Your task to perform on an android device: turn on improve location accuracy Image 0: 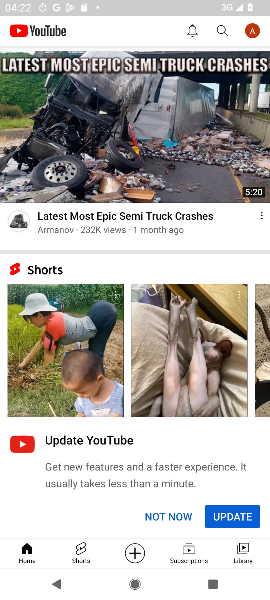
Step 0: press home button
Your task to perform on an android device: turn on improve location accuracy Image 1: 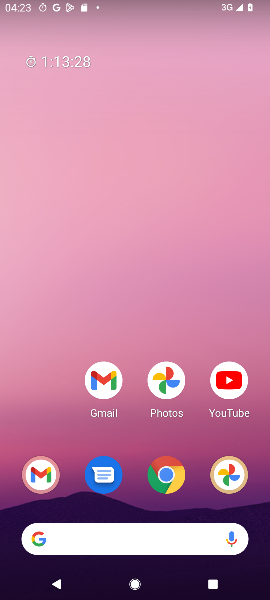
Step 1: drag from (59, 438) to (47, 180)
Your task to perform on an android device: turn on improve location accuracy Image 2: 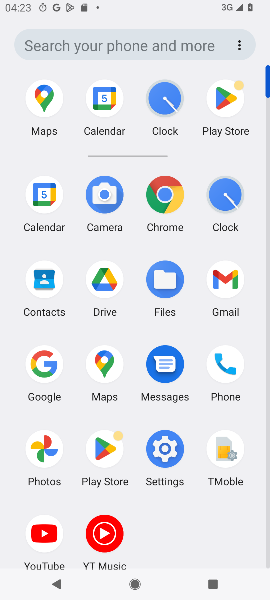
Step 2: click (164, 454)
Your task to perform on an android device: turn on improve location accuracy Image 3: 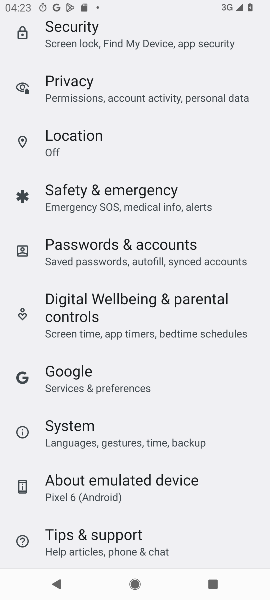
Step 3: drag from (242, 366) to (245, 426)
Your task to perform on an android device: turn on improve location accuracy Image 4: 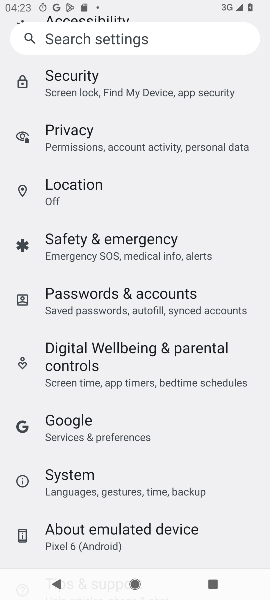
Step 4: drag from (244, 228) to (248, 333)
Your task to perform on an android device: turn on improve location accuracy Image 5: 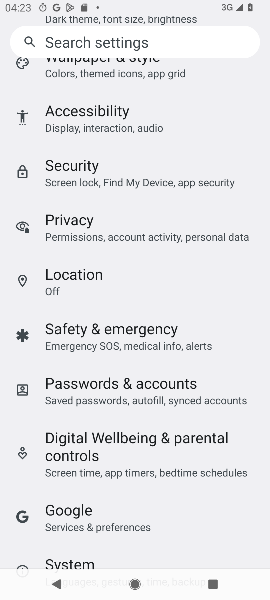
Step 5: drag from (251, 153) to (246, 294)
Your task to perform on an android device: turn on improve location accuracy Image 6: 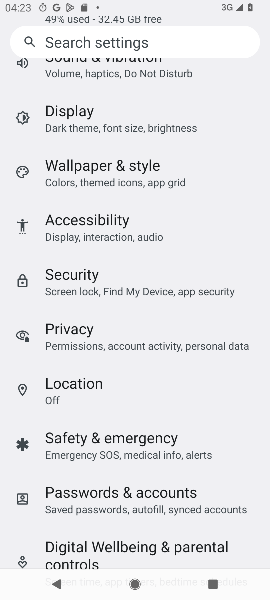
Step 6: drag from (243, 122) to (243, 271)
Your task to perform on an android device: turn on improve location accuracy Image 7: 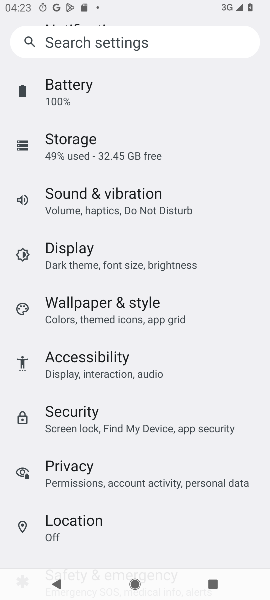
Step 7: drag from (239, 106) to (243, 232)
Your task to perform on an android device: turn on improve location accuracy Image 8: 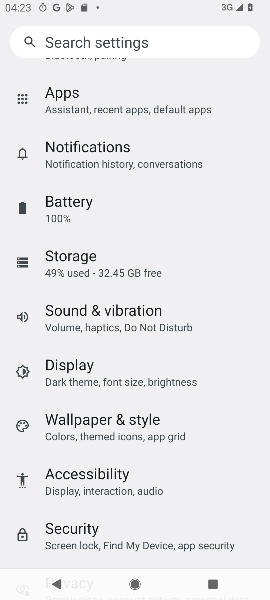
Step 8: drag from (236, 330) to (245, 228)
Your task to perform on an android device: turn on improve location accuracy Image 9: 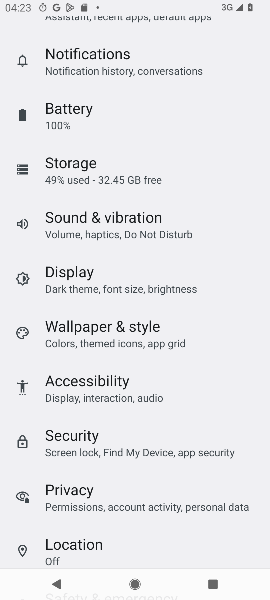
Step 9: drag from (233, 352) to (239, 244)
Your task to perform on an android device: turn on improve location accuracy Image 10: 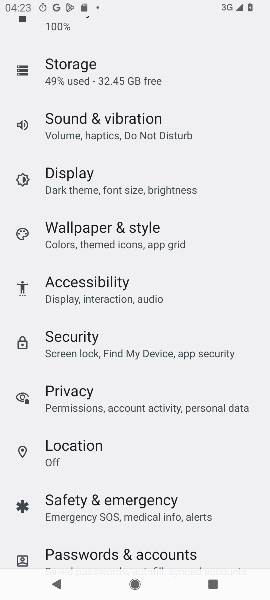
Step 10: drag from (233, 378) to (242, 276)
Your task to perform on an android device: turn on improve location accuracy Image 11: 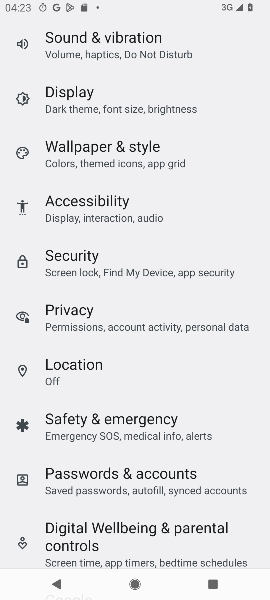
Step 11: drag from (236, 407) to (235, 298)
Your task to perform on an android device: turn on improve location accuracy Image 12: 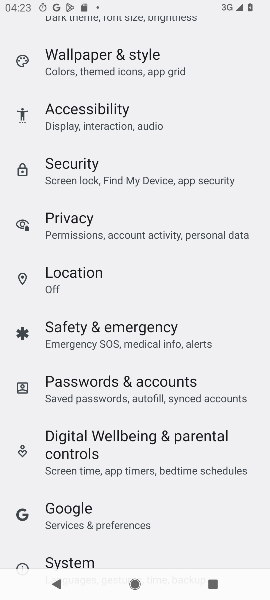
Step 12: drag from (222, 492) to (232, 354)
Your task to perform on an android device: turn on improve location accuracy Image 13: 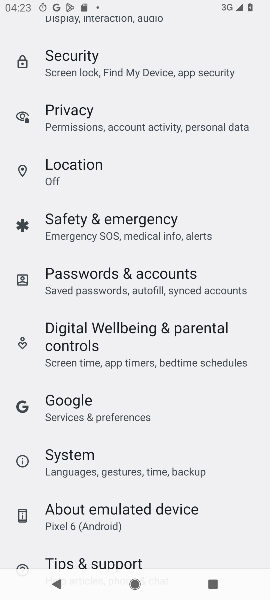
Step 13: drag from (237, 504) to (238, 373)
Your task to perform on an android device: turn on improve location accuracy Image 14: 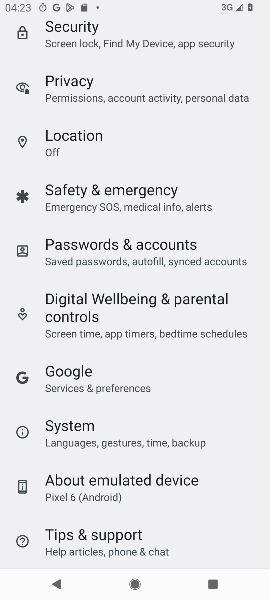
Step 14: click (142, 140)
Your task to perform on an android device: turn on improve location accuracy Image 15: 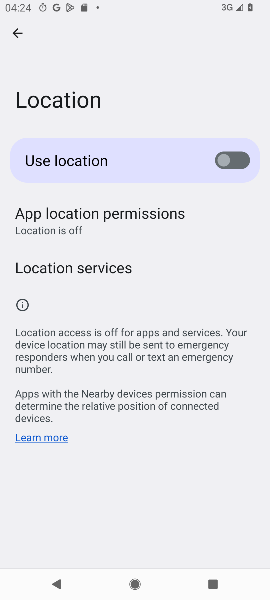
Step 15: click (90, 264)
Your task to perform on an android device: turn on improve location accuracy Image 16: 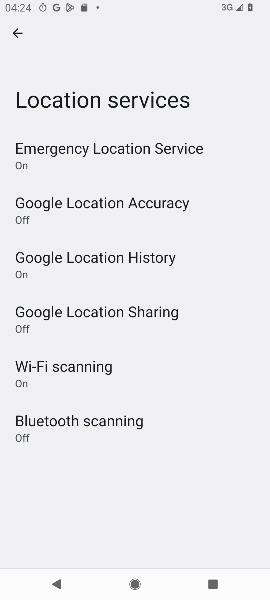
Step 16: click (106, 205)
Your task to perform on an android device: turn on improve location accuracy Image 17: 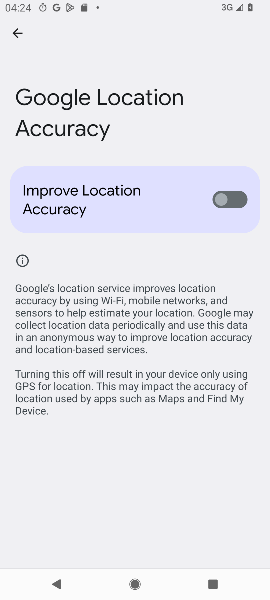
Step 17: click (223, 201)
Your task to perform on an android device: turn on improve location accuracy Image 18: 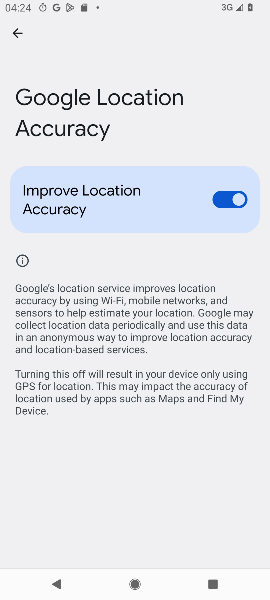
Step 18: task complete